Your task to perform on an android device: turn notification dots off Image 0: 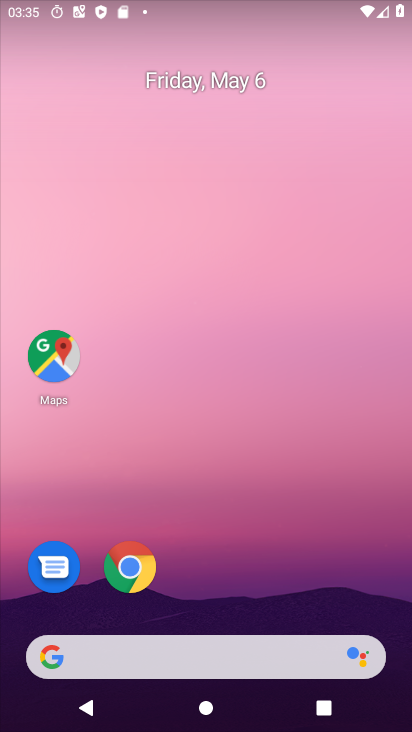
Step 0: drag from (133, 621) to (163, 297)
Your task to perform on an android device: turn notification dots off Image 1: 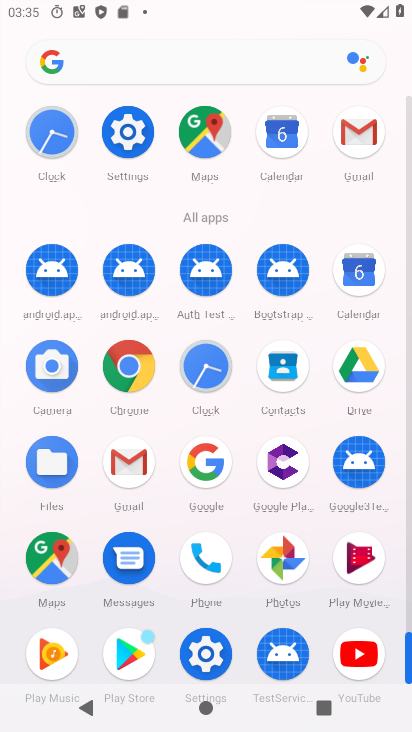
Step 1: click (118, 138)
Your task to perform on an android device: turn notification dots off Image 2: 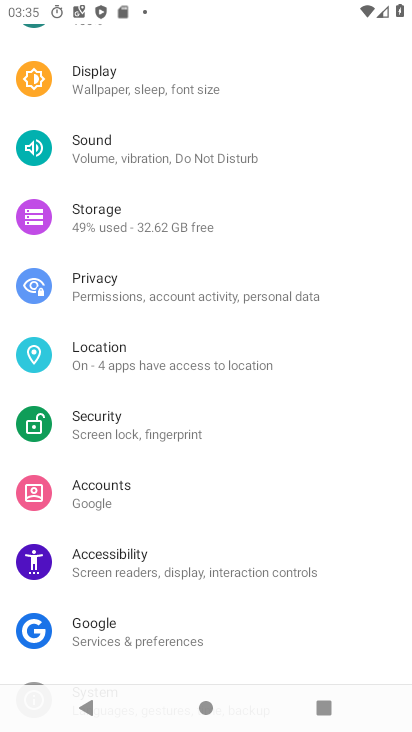
Step 2: drag from (148, 118) to (132, 435)
Your task to perform on an android device: turn notification dots off Image 3: 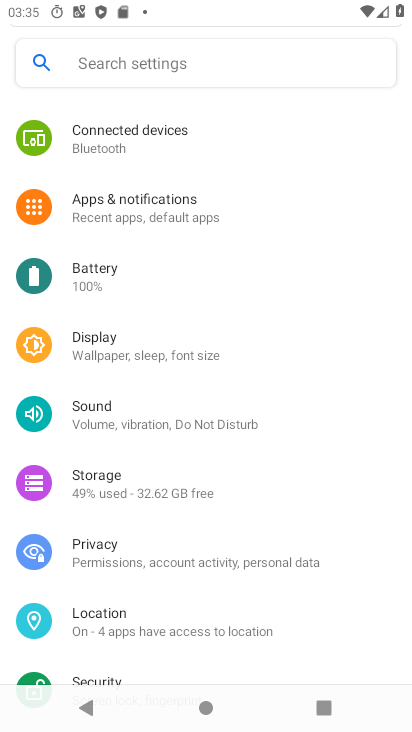
Step 3: click (201, 215)
Your task to perform on an android device: turn notification dots off Image 4: 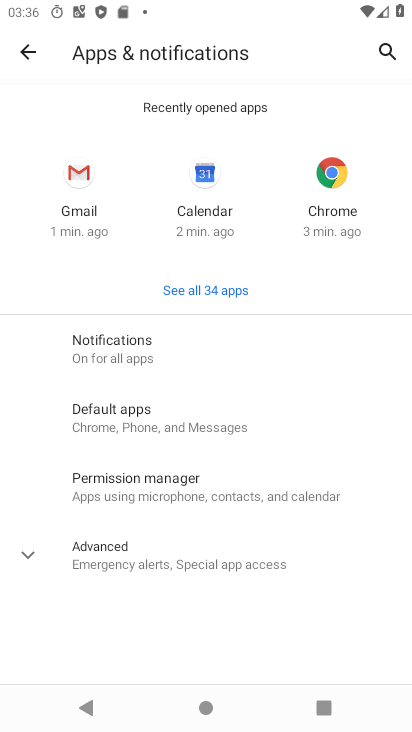
Step 4: click (75, 337)
Your task to perform on an android device: turn notification dots off Image 5: 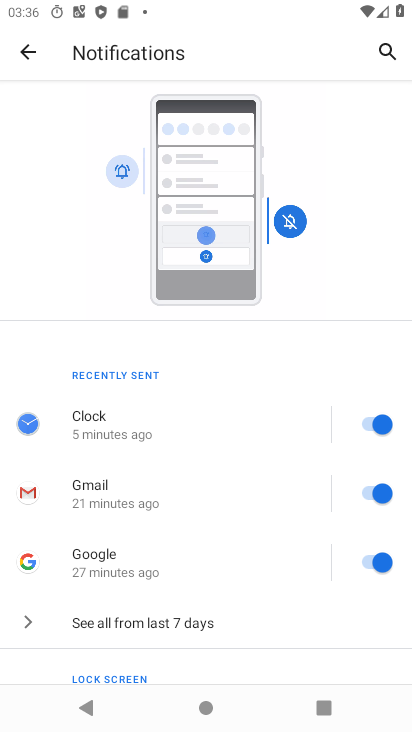
Step 5: drag from (223, 442) to (228, 334)
Your task to perform on an android device: turn notification dots off Image 6: 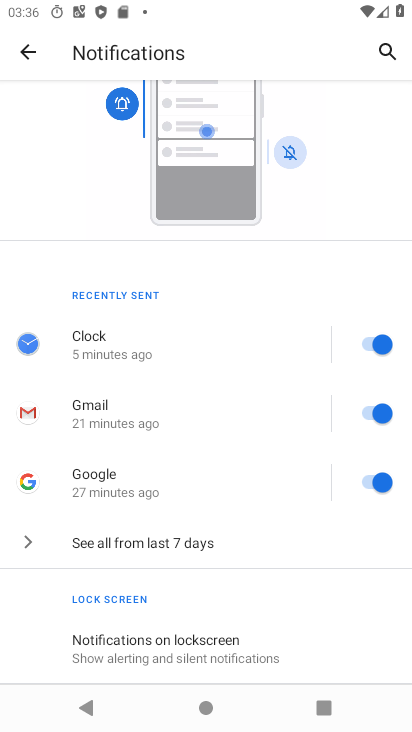
Step 6: drag from (221, 578) to (265, 306)
Your task to perform on an android device: turn notification dots off Image 7: 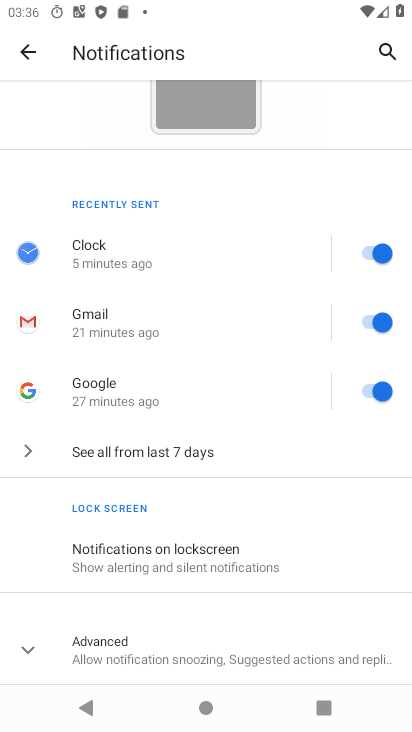
Step 7: click (22, 643)
Your task to perform on an android device: turn notification dots off Image 8: 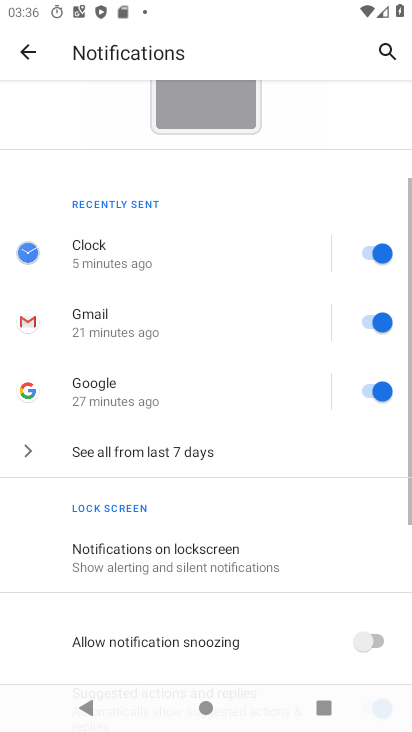
Step 8: drag from (115, 621) to (144, 354)
Your task to perform on an android device: turn notification dots off Image 9: 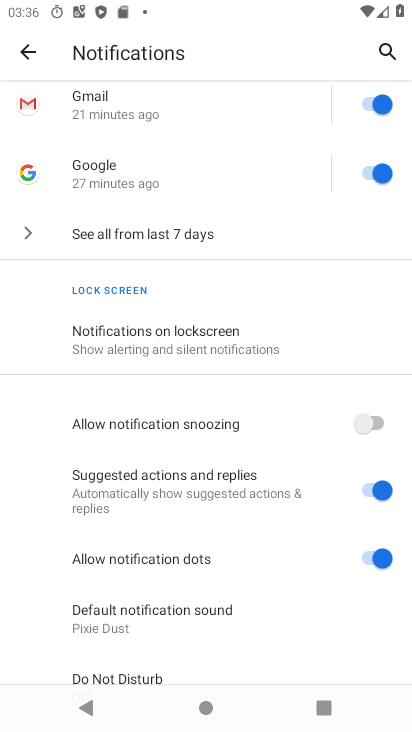
Step 9: click (368, 553)
Your task to perform on an android device: turn notification dots off Image 10: 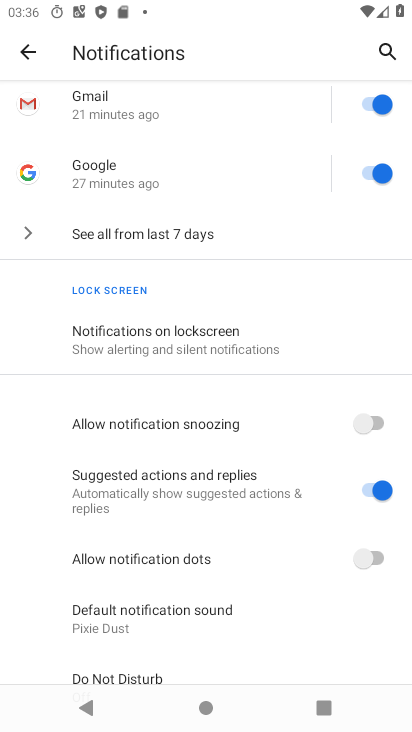
Step 10: task complete